Your task to perform on an android device: Open the stopwatch Image 0: 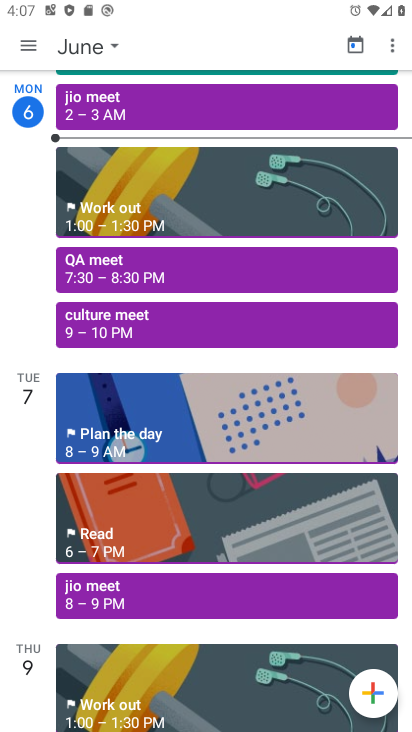
Step 0: press home button
Your task to perform on an android device: Open the stopwatch Image 1: 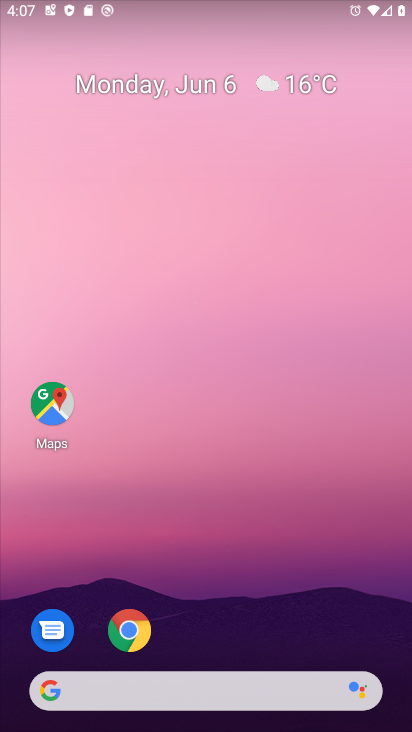
Step 1: drag from (295, 560) to (226, 25)
Your task to perform on an android device: Open the stopwatch Image 2: 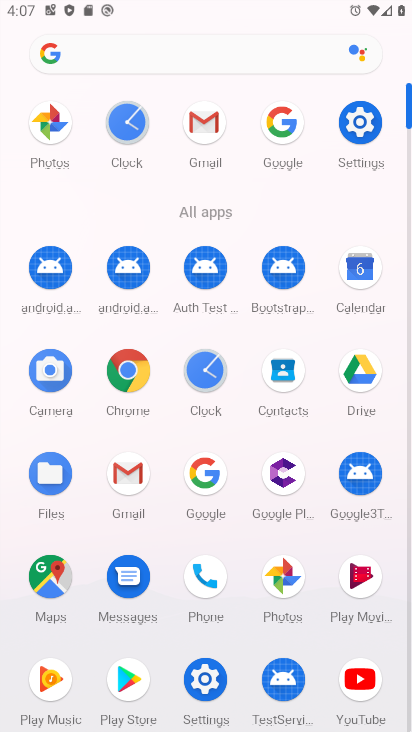
Step 2: click (204, 374)
Your task to perform on an android device: Open the stopwatch Image 3: 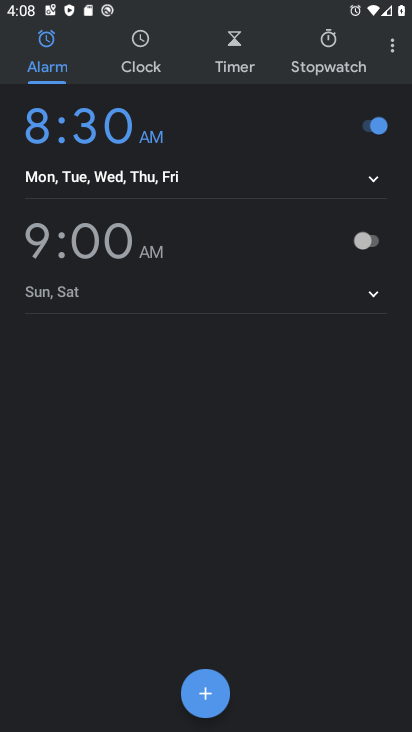
Step 3: click (337, 39)
Your task to perform on an android device: Open the stopwatch Image 4: 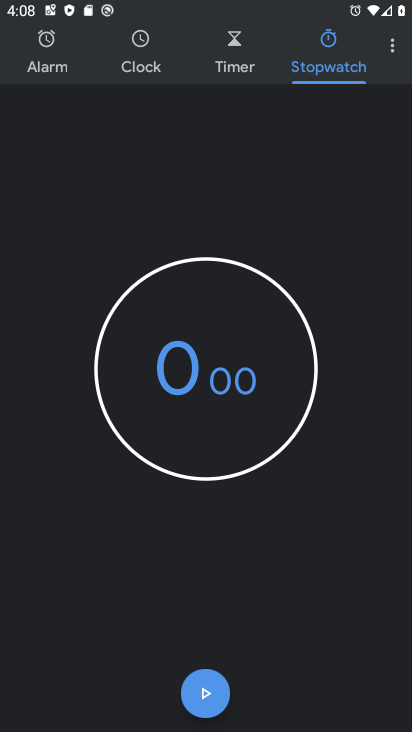
Step 4: task complete